Your task to perform on an android device: Go to privacy settings Image 0: 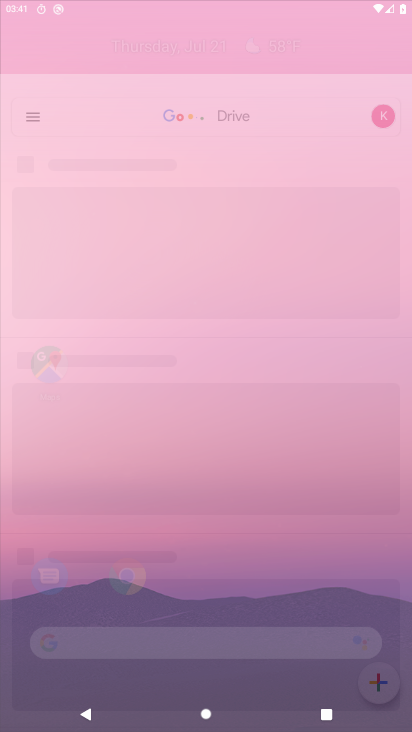
Step 0: drag from (230, 554) to (267, 190)
Your task to perform on an android device: Go to privacy settings Image 1: 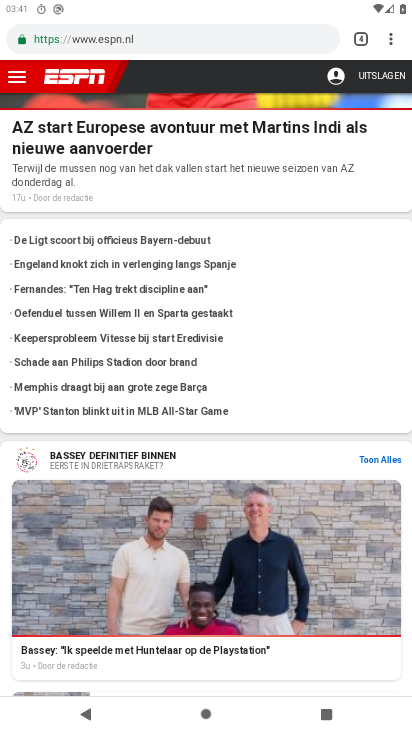
Step 1: press home button
Your task to perform on an android device: Go to privacy settings Image 2: 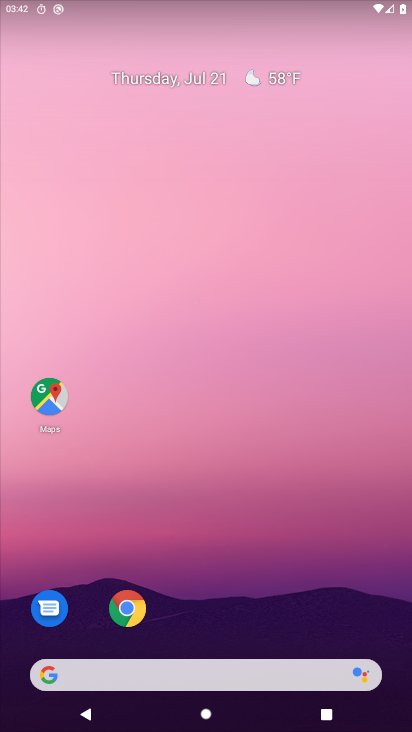
Step 2: drag from (227, 622) to (240, 153)
Your task to perform on an android device: Go to privacy settings Image 3: 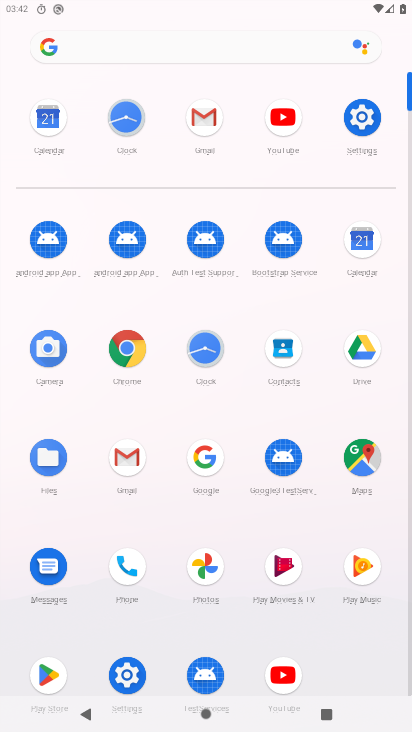
Step 3: click (367, 113)
Your task to perform on an android device: Go to privacy settings Image 4: 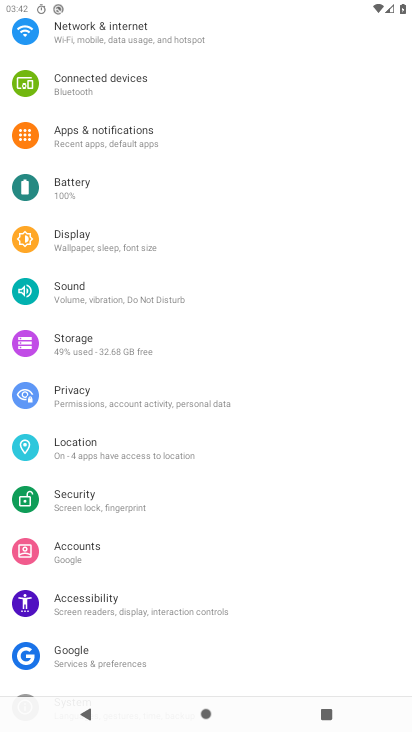
Step 4: click (98, 386)
Your task to perform on an android device: Go to privacy settings Image 5: 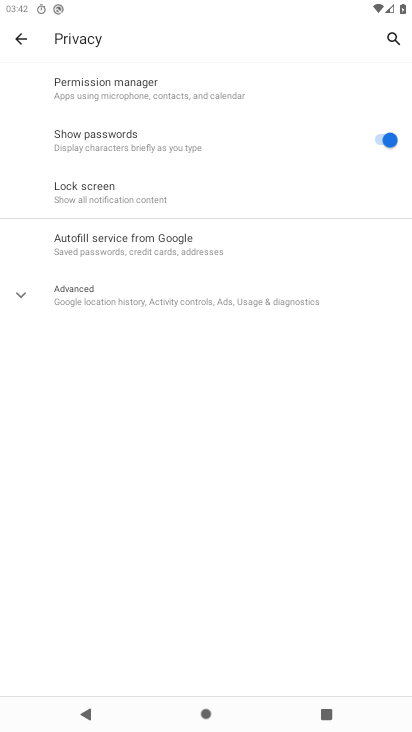
Step 5: click (21, 290)
Your task to perform on an android device: Go to privacy settings Image 6: 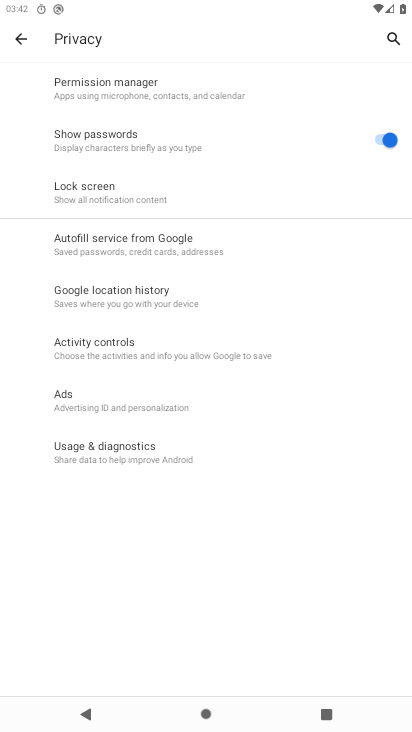
Step 6: task complete